Your task to perform on an android device: Open Google Chrome and open the bookmarks view Image 0: 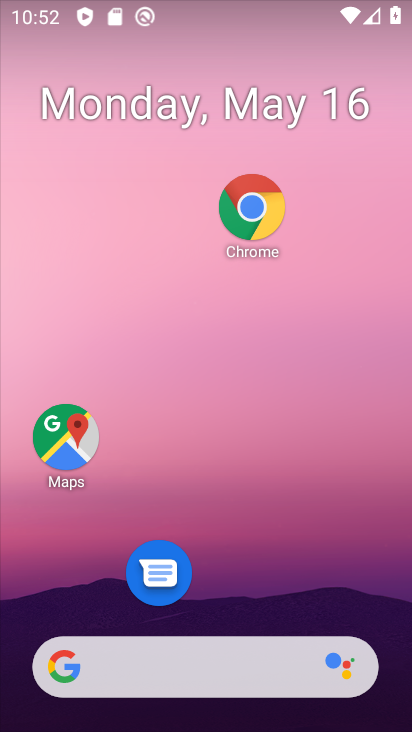
Step 0: drag from (246, 648) to (284, 34)
Your task to perform on an android device: Open Google Chrome and open the bookmarks view Image 1: 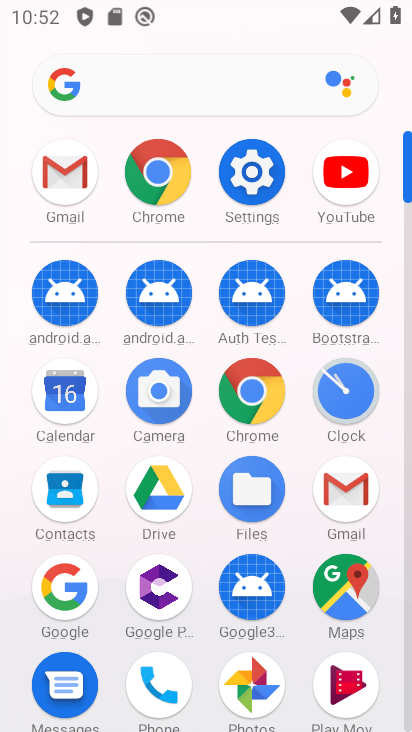
Step 1: click (233, 405)
Your task to perform on an android device: Open Google Chrome and open the bookmarks view Image 2: 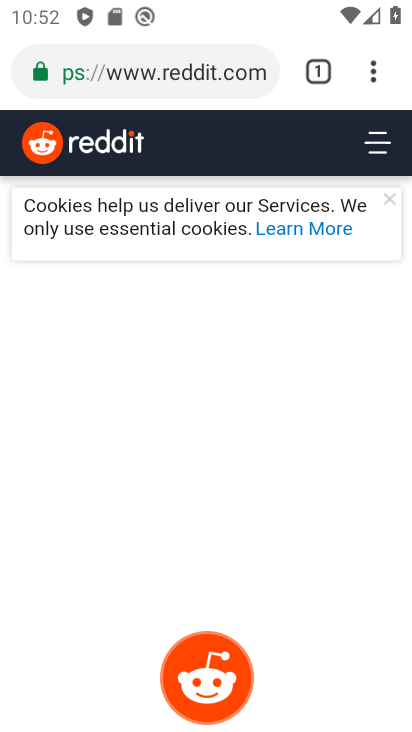
Step 2: click (371, 74)
Your task to perform on an android device: Open Google Chrome and open the bookmarks view Image 3: 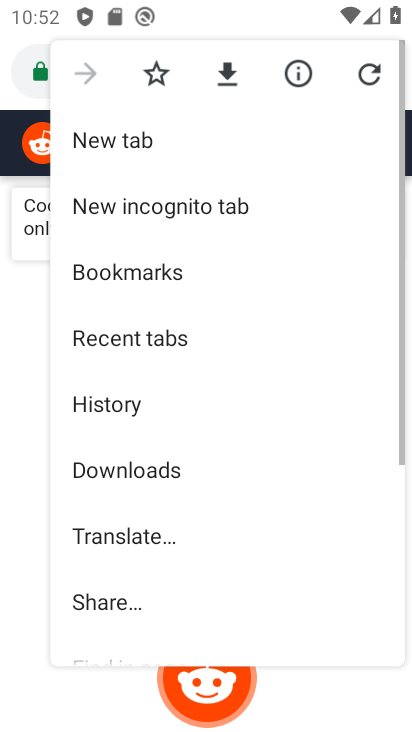
Step 3: click (212, 272)
Your task to perform on an android device: Open Google Chrome and open the bookmarks view Image 4: 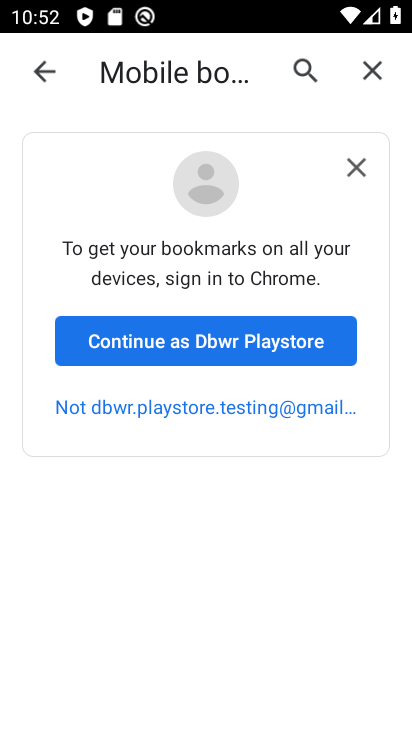
Step 4: task complete